Your task to perform on an android device: clear all cookies in the chrome app Image 0: 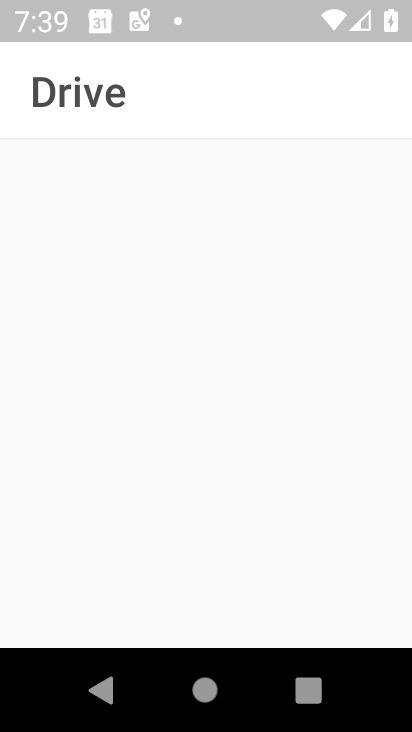
Step 0: press home button
Your task to perform on an android device: clear all cookies in the chrome app Image 1: 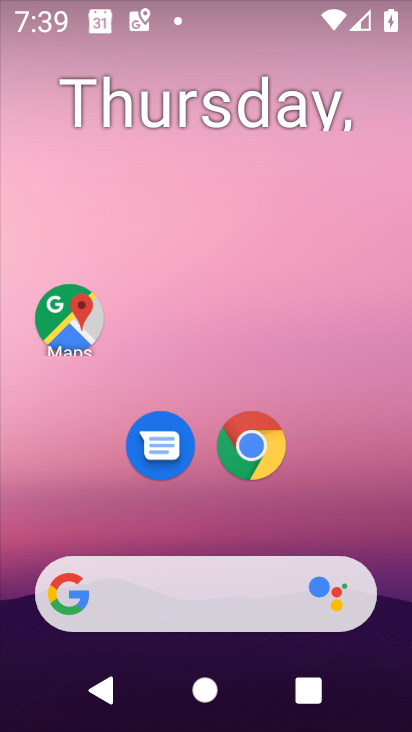
Step 1: drag from (338, 244) to (216, 31)
Your task to perform on an android device: clear all cookies in the chrome app Image 2: 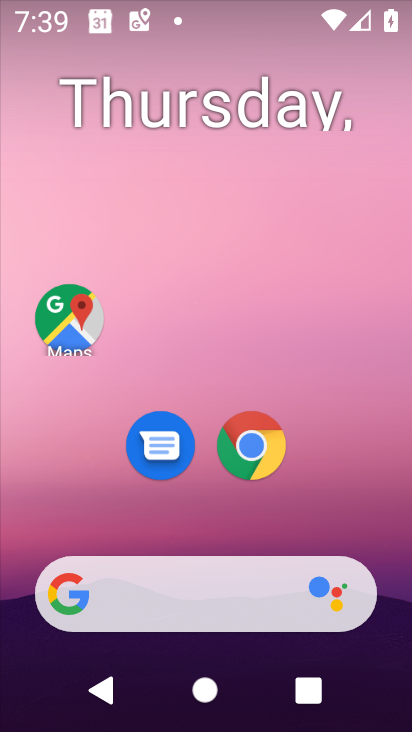
Step 2: drag from (405, 623) to (280, 53)
Your task to perform on an android device: clear all cookies in the chrome app Image 3: 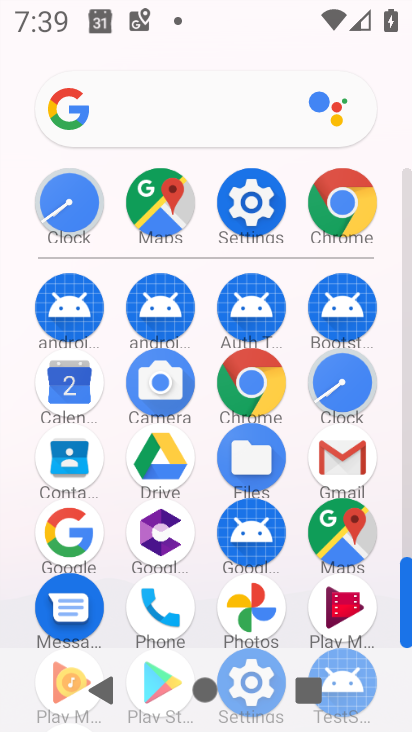
Step 3: click (348, 202)
Your task to perform on an android device: clear all cookies in the chrome app Image 4: 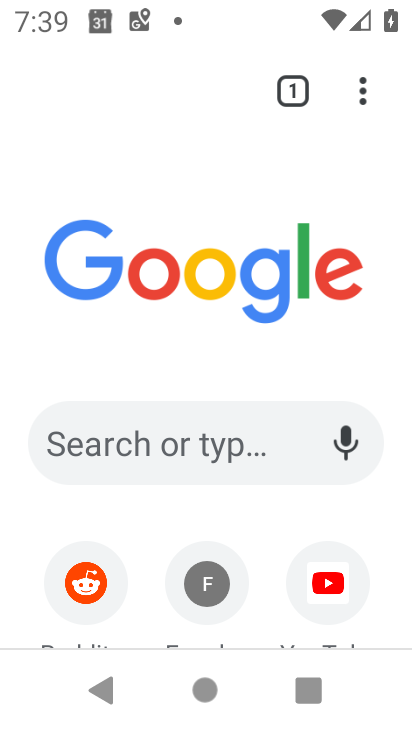
Step 4: click (359, 80)
Your task to perform on an android device: clear all cookies in the chrome app Image 5: 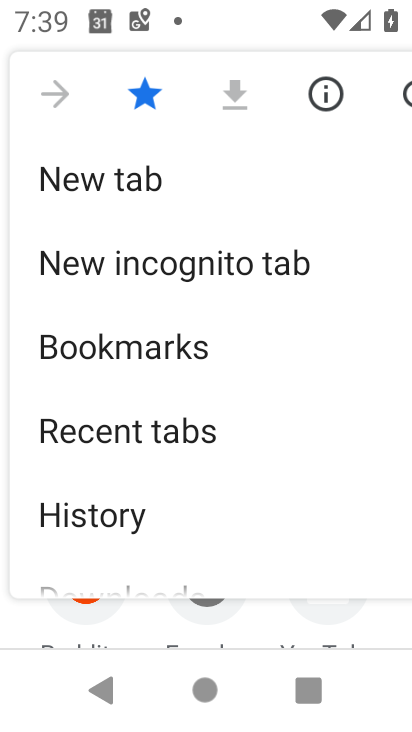
Step 5: click (95, 527)
Your task to perform on an android device: clear all cookies in the chrome app Image 6: 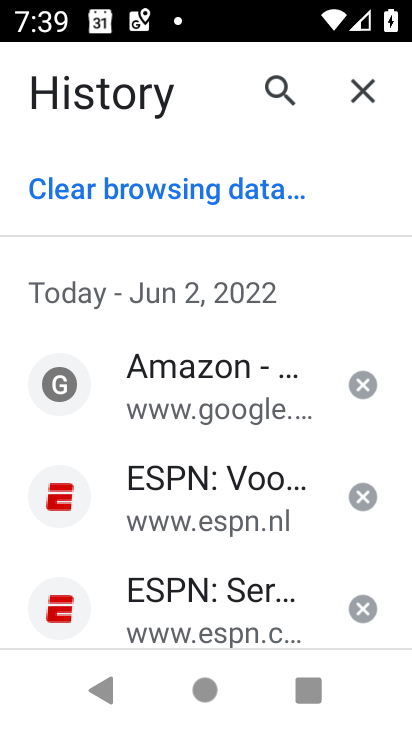
Step 6: click (217, 176)
Your task to perform on an android device: clear all cookies in the chrome app Image 7: 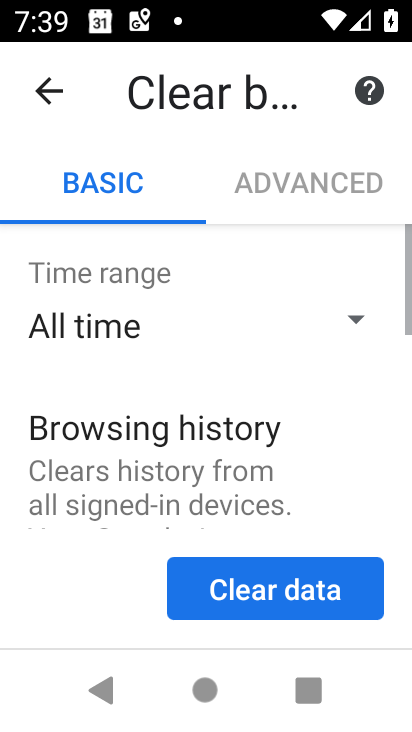
Step 7: click (332, 579)
Your task to perform on an android device: clear all cookies in the chrome app Image 8: 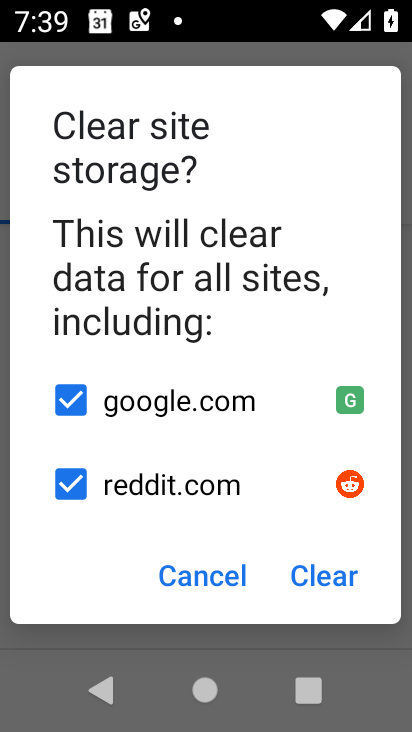
Step 8: click (332, 578)
Your task to perform on an android device: clear all cookies in the chrome app Image 9: 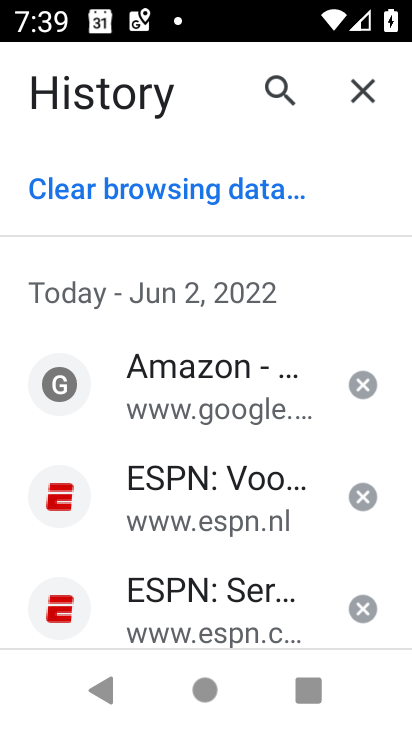
Step 9: click (178, 191)
Your task to perform on an android device: clear all cookies in the chrome app Image 10: 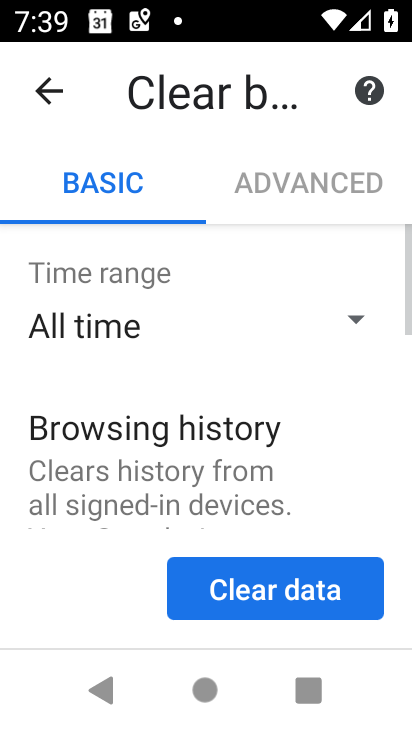
Step 10: click (302, 478)
Your task to perform on an android device: clear all cookies in the chrome app Image 11: 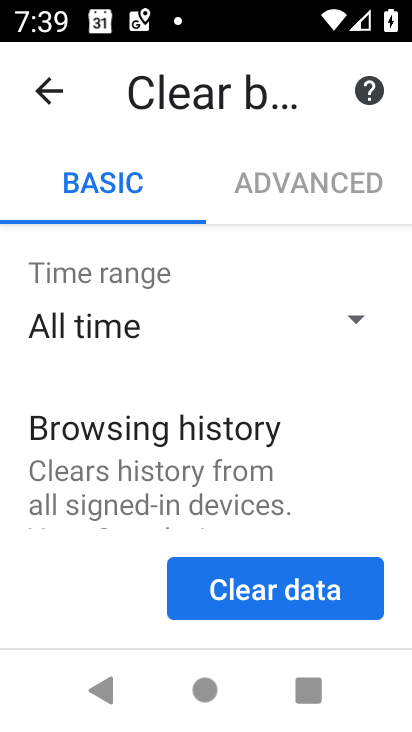
Step 11: drag from (315, 470) to (288, 213)
Your task to perform on an android device: clear all cookies in the chrome app Image 12: 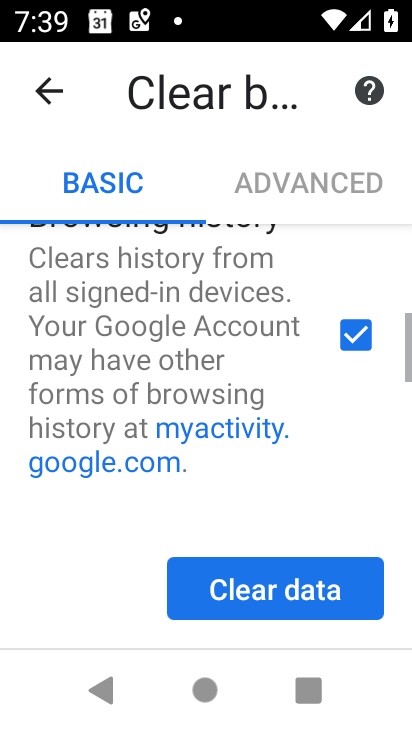
Step 12: click (278, 178)
Your task to perform on an android device: clear all cookies in the chrome app Image 13: 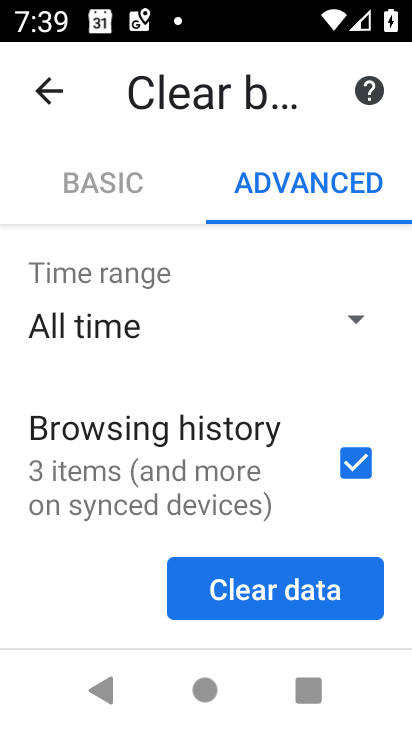
Step 13: click (87, 183)
Your task to perform on an android device: clear all cookies in the chrome app Image 14: 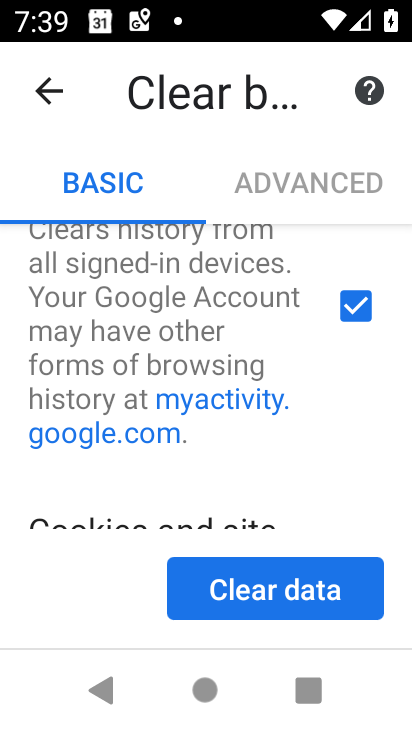
Step 14: click (269, 587)
Your task to perform on an android device: clear all cookies in the chrome app Image 15: 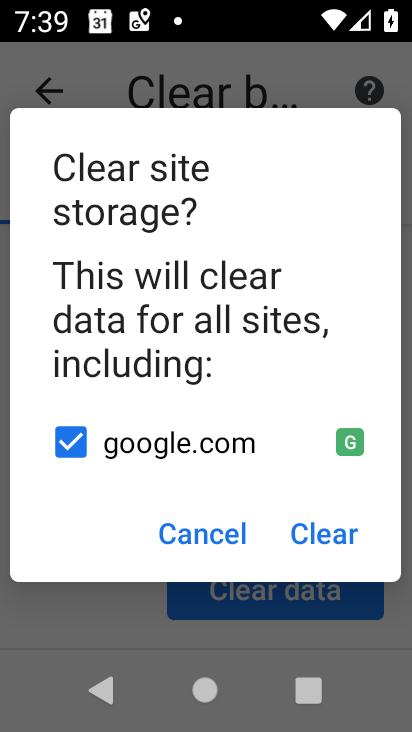
Step 15: click (319, 523)
Your task to perform on an android device: clear all cookies in the chrome app Image 16: 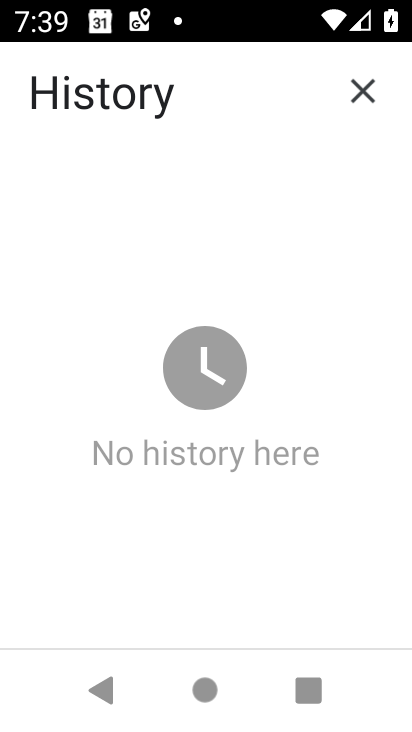
Step 16: task complete